Your task to perform on an android device: set an alarm Image 0: 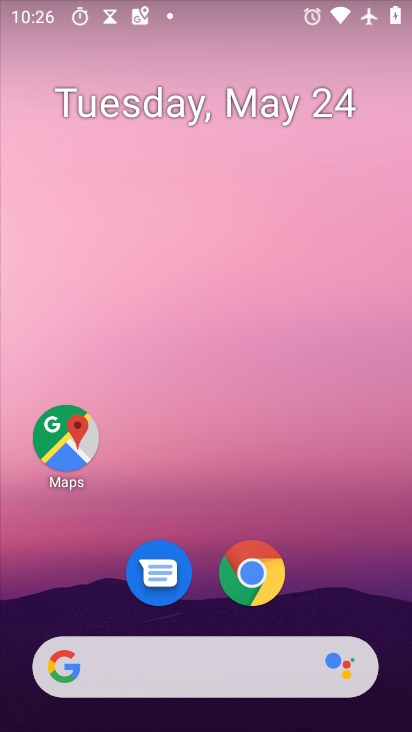
Step 0: drag from (358, 514) to (357, 7)
Your task to perform on an android device: set an alarm Image 1: 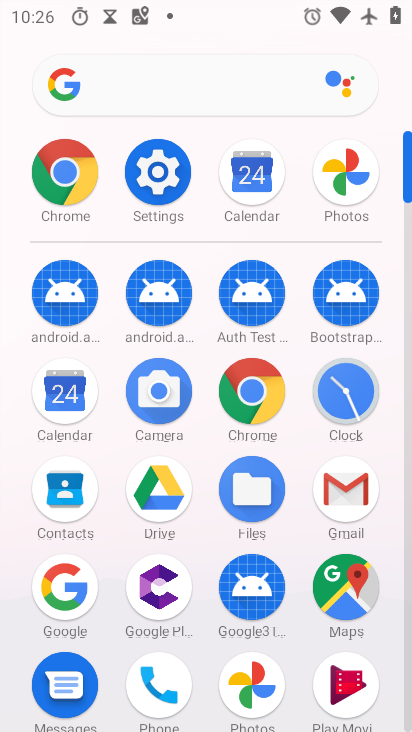
Step 1: click (342, 408)
Your task to perform on an android device: set an alarm Image 2: 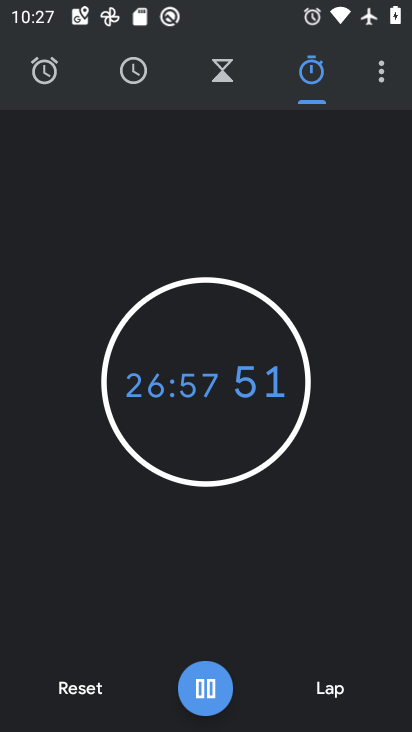
Step 2: click (42, 83)
Your task to perform on an android device: set an alarm Image 3: 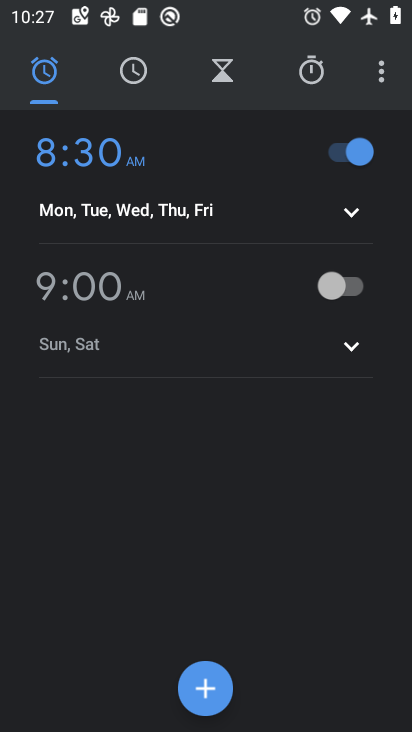
Step 3: click (322, 287)
Your task to perform on an android device: set an alarm Image 4: 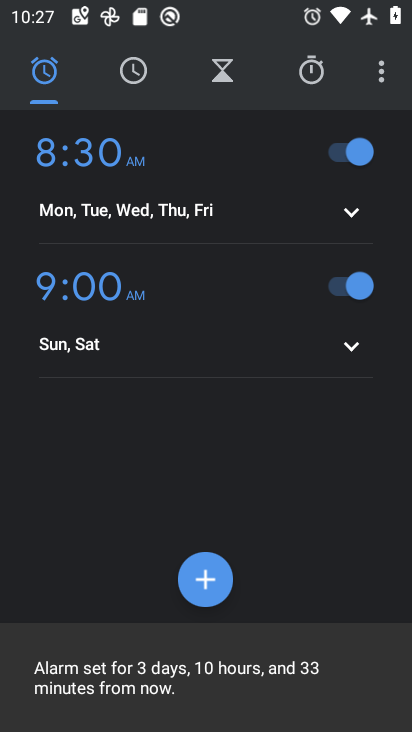
Step 4: task complete